Your task to perform on an android device: Open wifi settings Image 0: 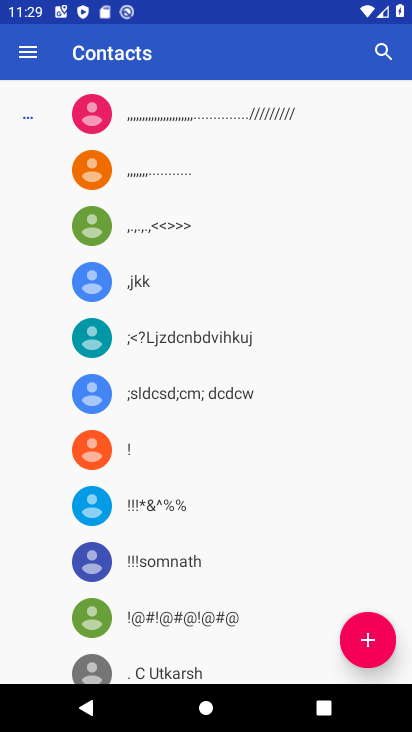
Step 0: press home button
Your task to perform on an android device: Open wifi settings Image 1: 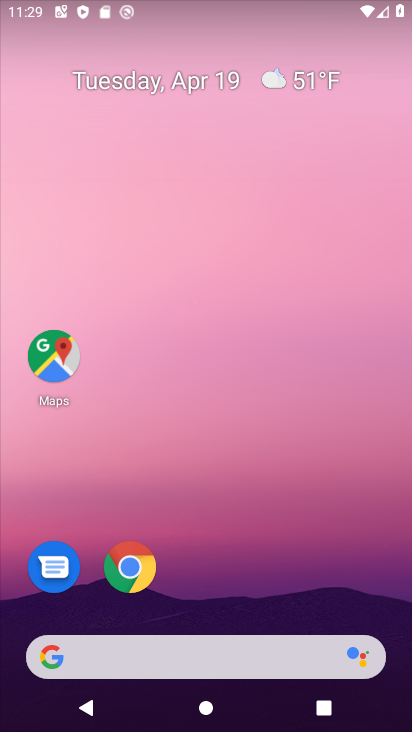
Step 1: drag from (196, 594) to (249, 296)
Your task to perform on an android device: Open wifi settings Image 2: 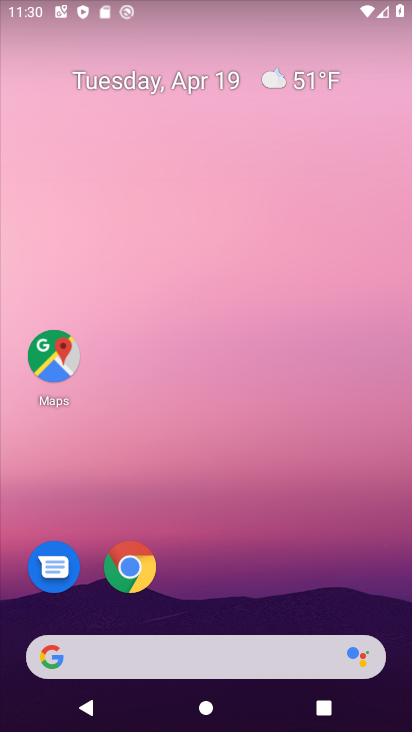
Step 2: drag from (220, 598) to (289, 34)
Your task to perform on an android device: Open wifi settings Image 3: 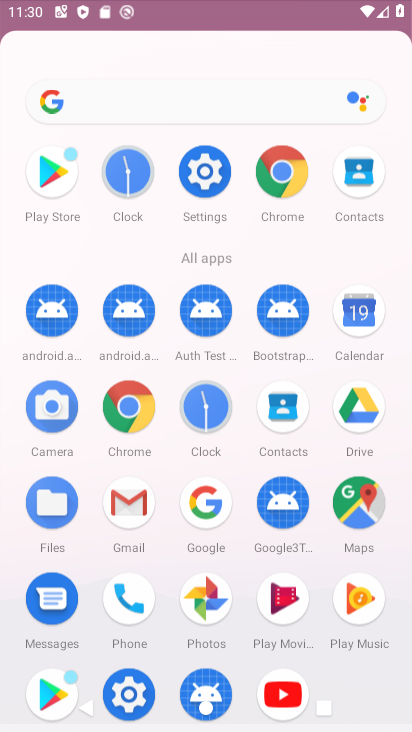
Step 3: drag from (223, 561) to (325, 1)
Your task to perform on an android device: Open wifi settings Image 4: 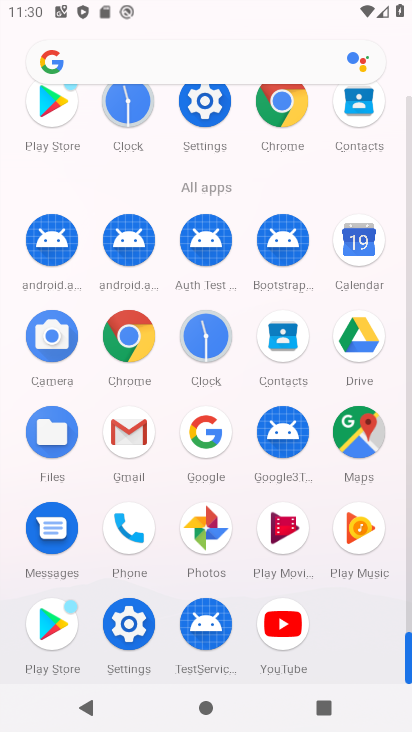
Step 4: click (118, 624)
Your task to perform on an android device: Open wifi settings Image 5: 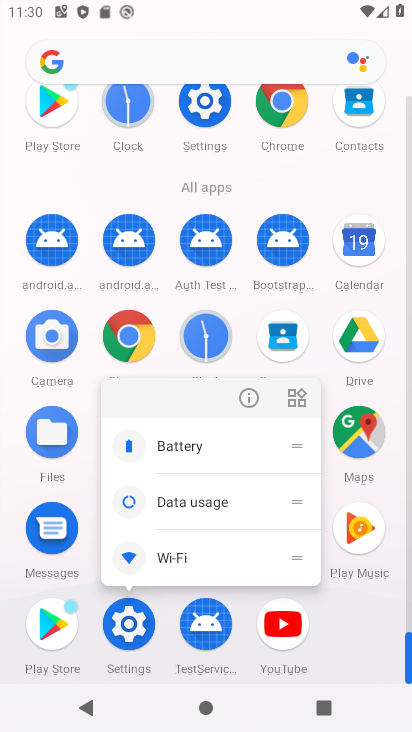
Step 5: click (125, 624)
Your task to perform on an android device: Open wifi settings Image 6: 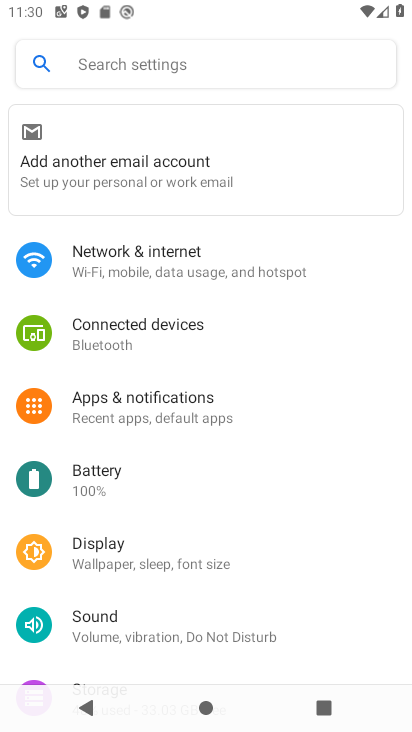
Step 6: click (156, 271)
Your task to perform on an android device: Open wifi settings Image 7: 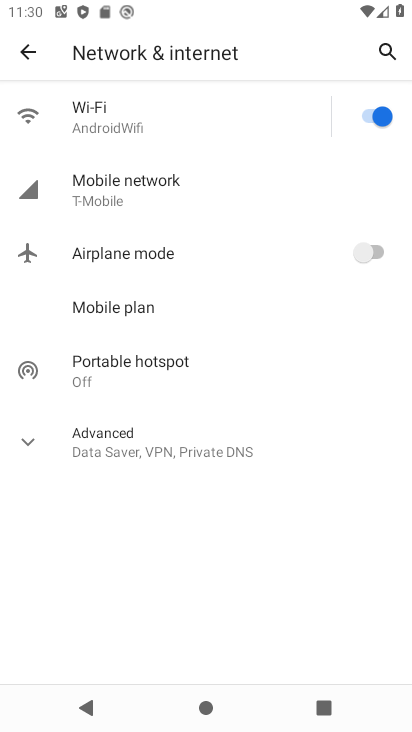
Step 7: click (127, 116)
Your task to perform on an android device: Open wifi settings Image 8: 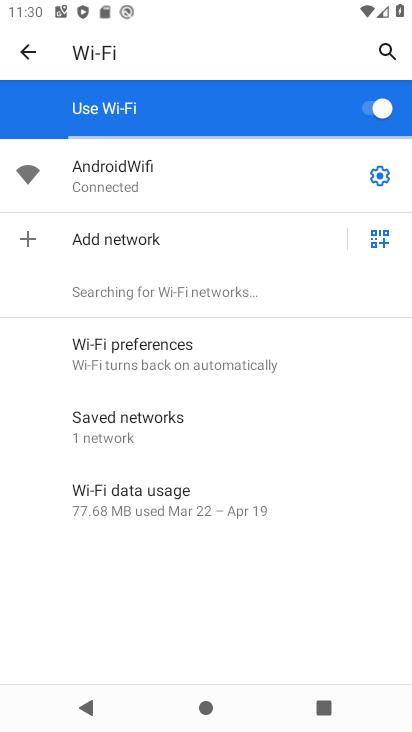
Step 8: task complete